Your task to perform on an android device: Open the calendar app, open the side menu, and click the "Day" option Image 0: 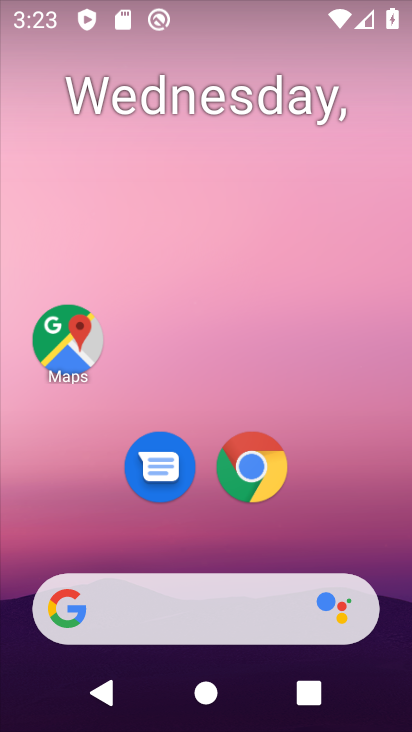
Step 0: drag from (340, 428) to (270, 16)
Your task to perform on an android device: Open the calendar app, open the side menu, and click the "Day" option Image 1: 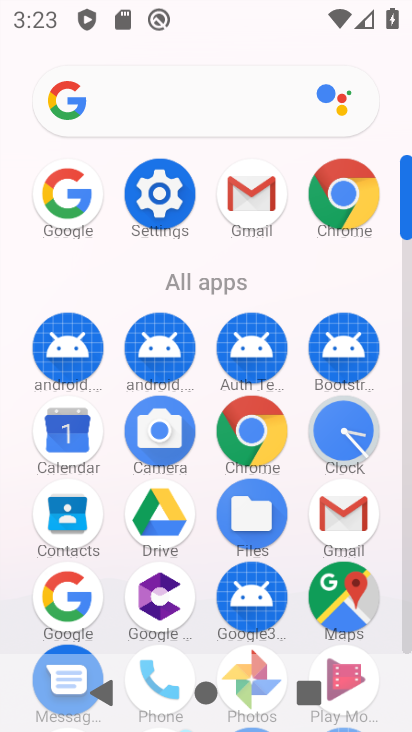
Step 1: click (64, 434)
Your task to perform on an android device: Open the calendar app, open the side menu, and click the "Day" option Image 2: 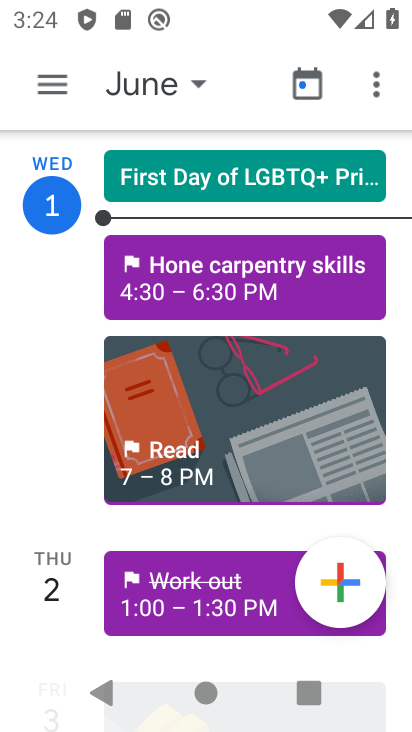
Step 2: click (60, 86)
Your task to perform on an android device: Open the calendar app, open the side menu, and click the "Day" option Image 3: 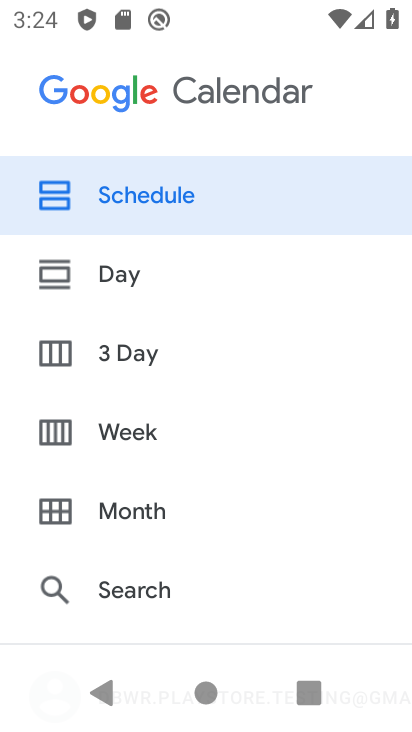
Step 3: click (132, 279)
Your task to perform on an android device: Open the calendar app, open the side menu, and click the "Day" option Image 4: 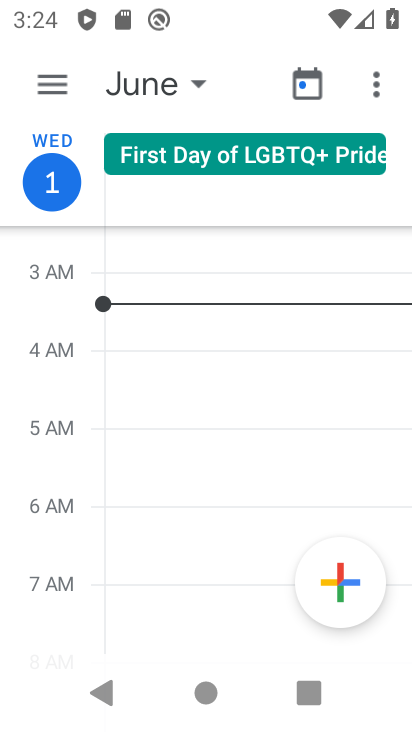
Step 4: task complete